Your task to perform on an android device: turn pop-ups off in chrome Image 0: 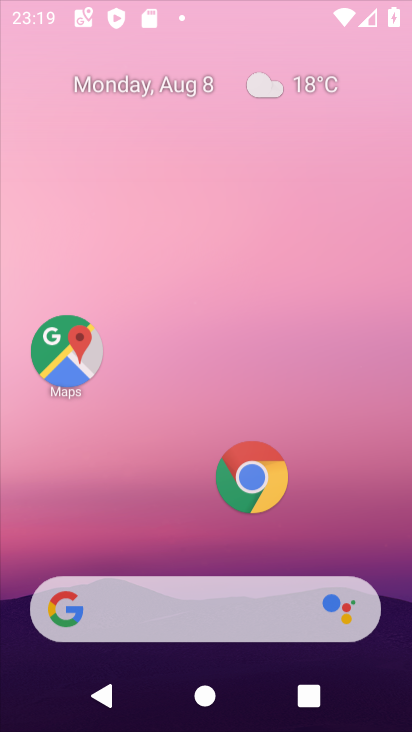
Step 0: drag from (171, 195) to (168, 158)
Your task to perform on an android device: turn pop-ups off in chrome Image 1: 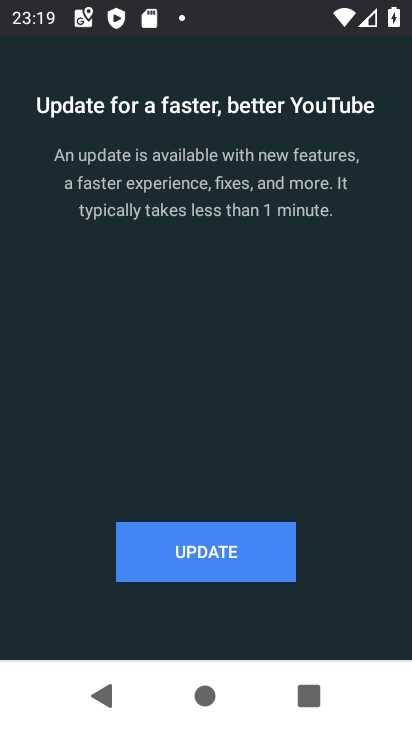
Step 1: press home button
Your task to perform on an android device: turn pop-ups off in chrome Image 2: 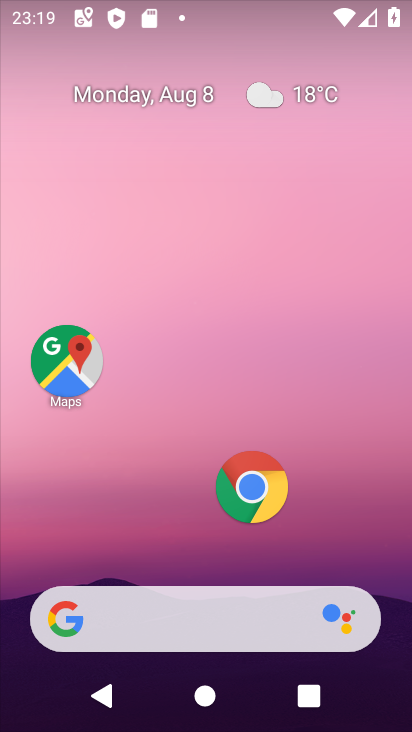
Step 2: click (263, 479)
Your task to perform on an android device: turn pop-ups off in chrome Image 3: 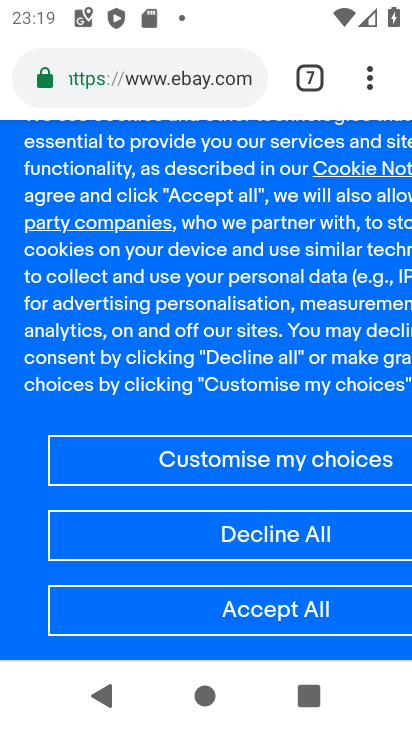
Step 3: click (365, 87)
Your task to perform on an android device: turn pop-ups off in chrome Image 4: 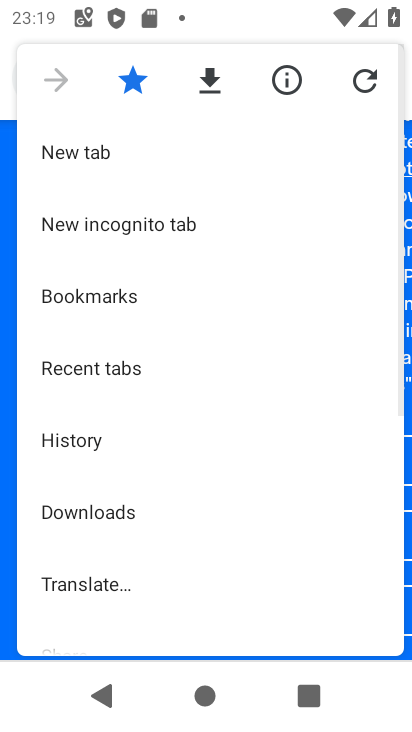
Step 4: drag from (107, 538) to (79, 271)
Your task to perform on an android device: turn pop-ups off in chrome Image 5: 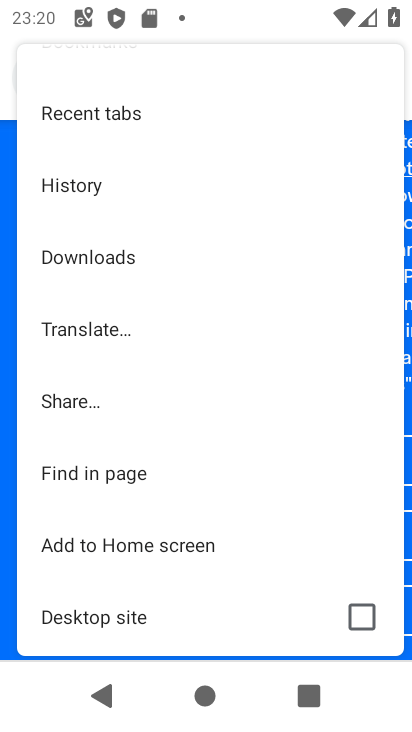
Step 5: drag from (83, 546) to (68, 255)
Your task to perform on an android device: turn pop-ups off in chrome Image 6: 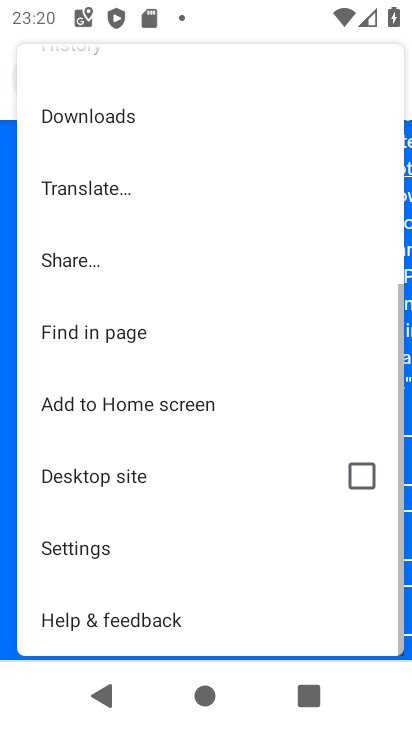
Step 6: click (85, 539)
Your task to perform on an android device: turn pop-ups off in chrome Image 7: 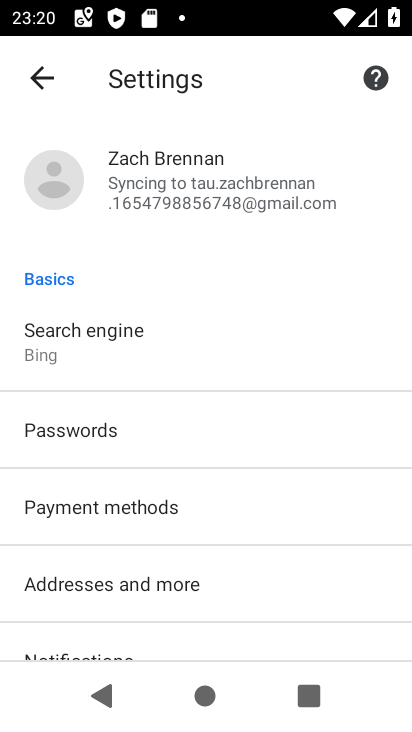
Step 7: drag from (202, 596) to (160, 261)
Your task to perform on an android device: turn pop-ups off in chrome Image 8: 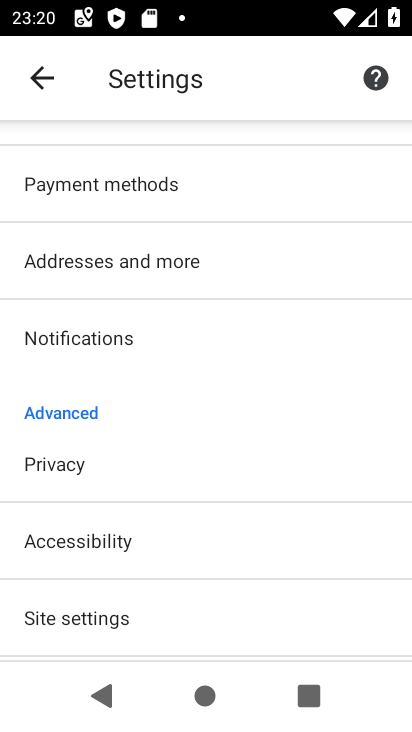
Step 8: drag from (148, 621) to (105, 362)
Your task to perform on an android device: turn pop-ups off in chrome Image 9: 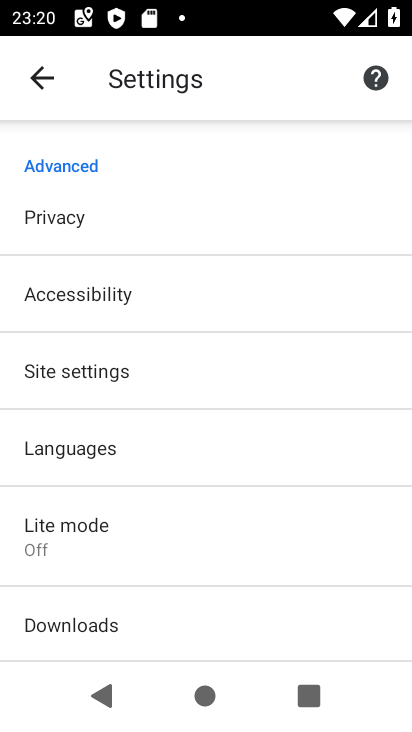
Step 9: click (78, 375)
Your task to perform on an android device: turn pop-ups off in chrome Image 10: 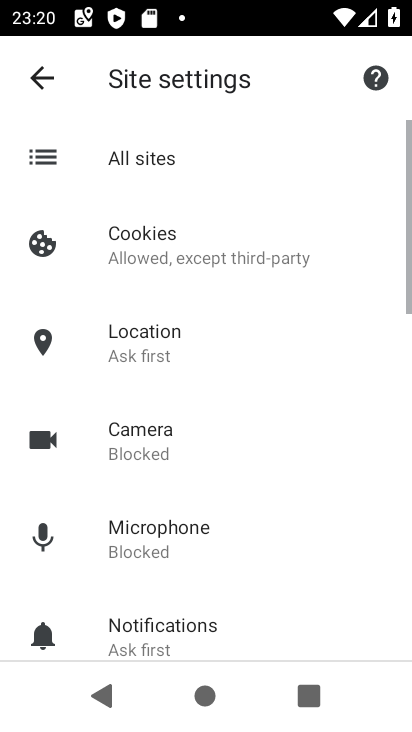
Step 10: drag from (128, 623) to (119, 321)
Your task to perform on an android device: turn pop-ups off in chrome Image 11: 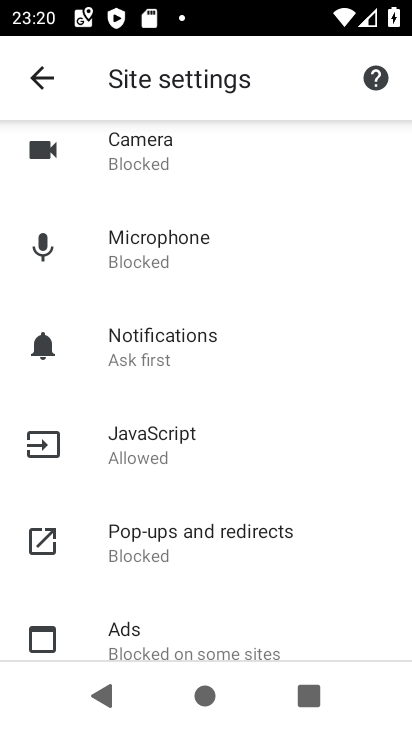
Step 11: click (137, 529)
Your task to perform on an android device: turn pop-ups off in chrome Image 12: 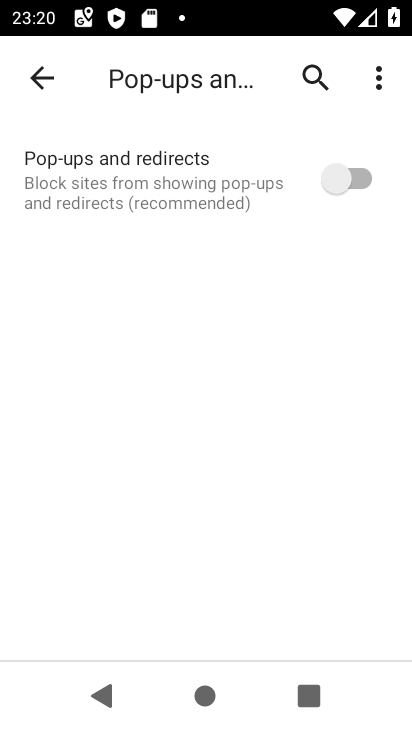
Step 12: task complete